Your task to perform on an android device: search for starred emails in the gmail app Image 0: 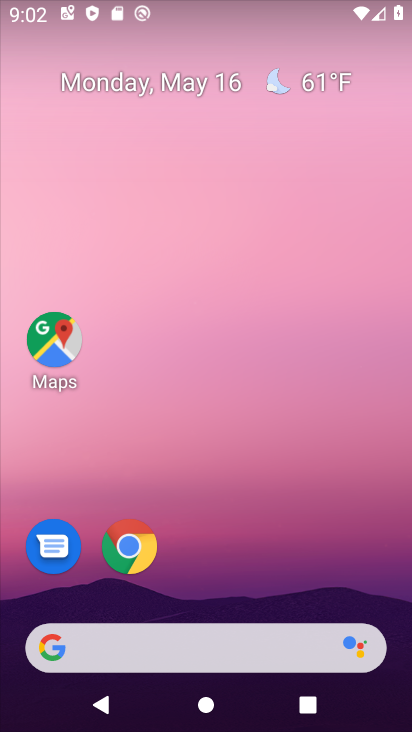
Step 0: click (292, 561)
Your task to perform on an android device: search for starred emails in the gmail app Image 1: 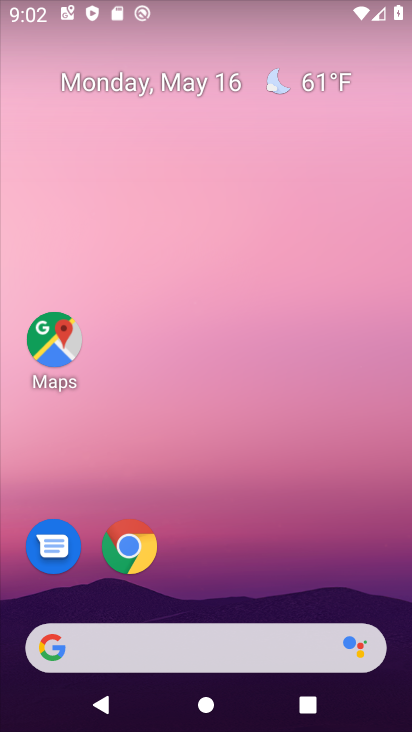
Step 1: drag from (292, 561) to (229, 220)
Your task to perform on an android device: search for starred emails in the gmail app Image 2: 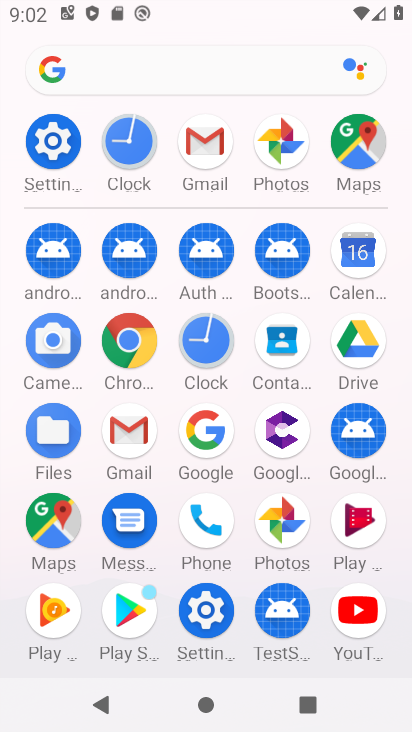
Step 2: click (141, 430)
Your task to perform on an android device: search for starred emails in the gmail app Image 3: 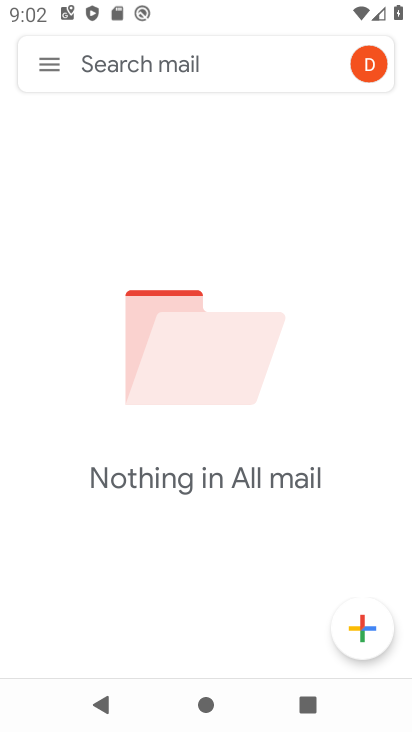
Step 3: click (46, 65)
Your task to perform on an android device: search for starred emails in the gmail app Image 4: 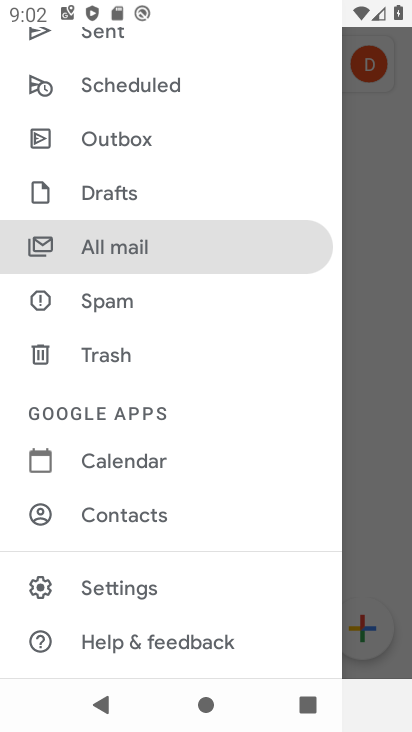
Step 4: drag from (245, 243) to (232, 677)
Your task to perform on an android device: search for starred emails in the gmail app Image 5: 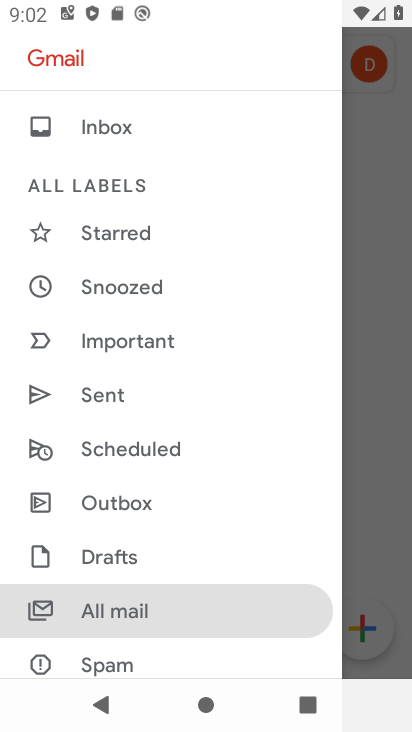
Step 5: click (97, 228)
Your task to perform on an android device: search for starred emails in the gmail app Image 6: 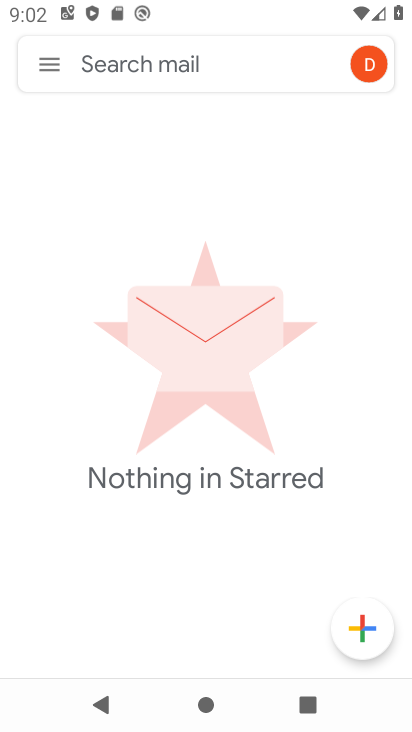
Step 6: task complete